Your task to perform on an android device: Go to display settings Image 0: 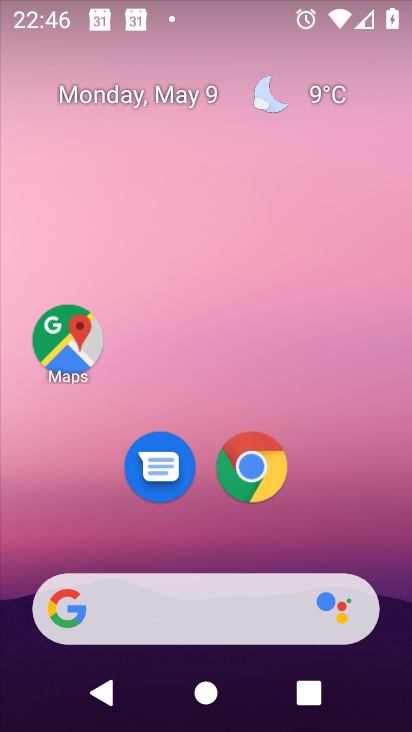
Step 0: drag from (388, 543) to (365, 7)
Your task to perform on an android device: Go to display settings Image 1: 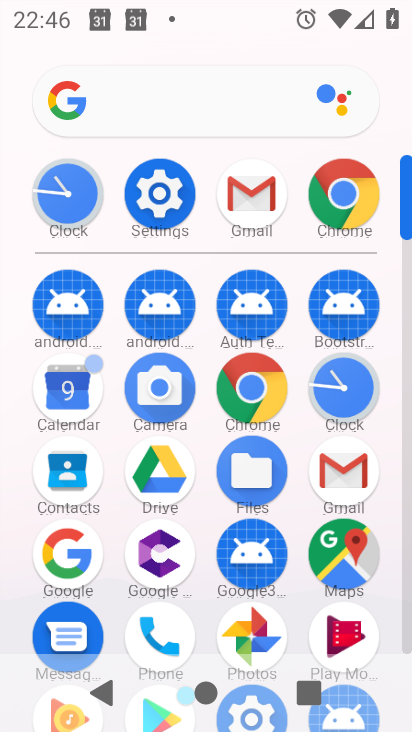
Step 1: click (159, 201)
Your task to perform on an android device: Go to display settings Image 2: 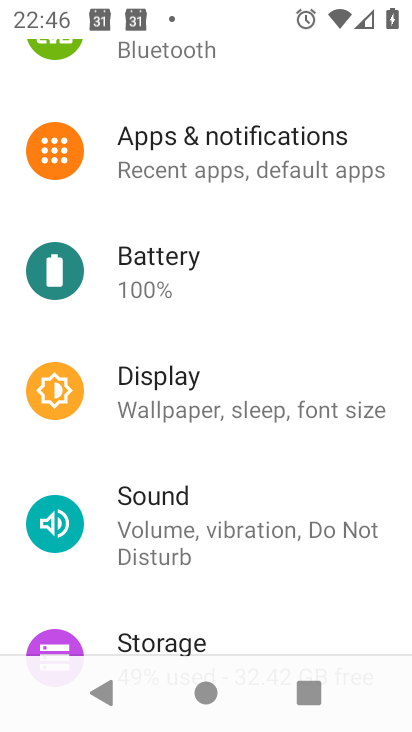
Step 2: click (162, 397)
Your task to perform on an android device: Go to display settings Image 3: 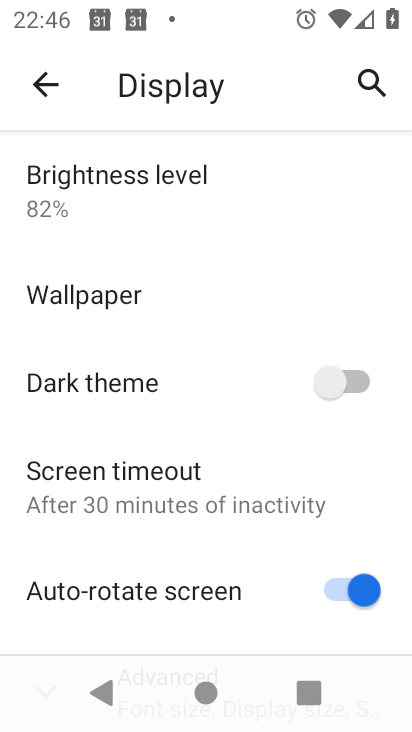
Step 3: task complete